Your task to perform on an android device: toggle location history Image 0: 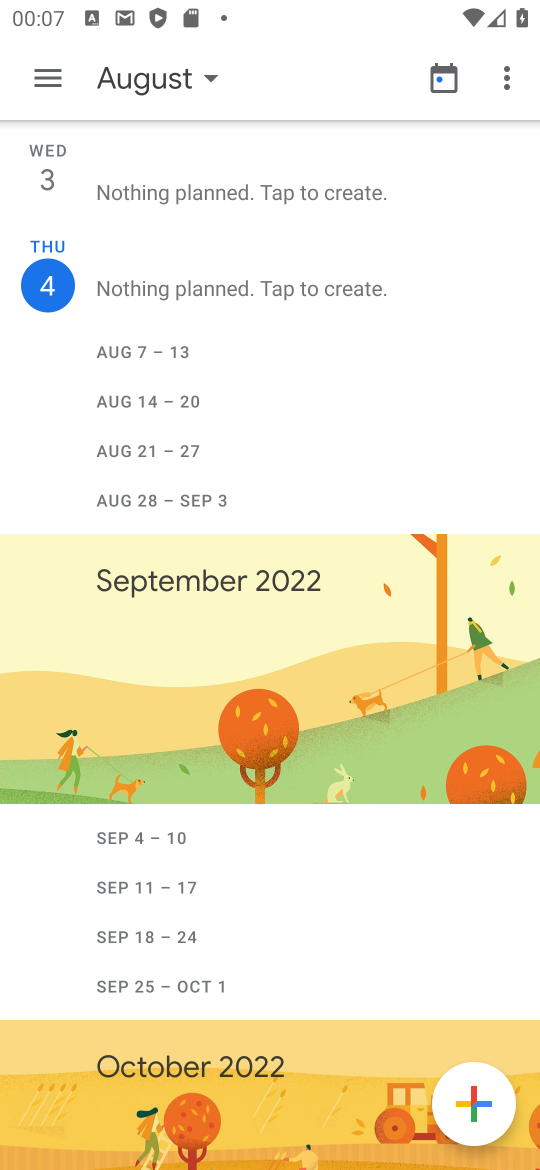
Step 0: press home button
Your task to perform on an android device: toggle location history Image 1: 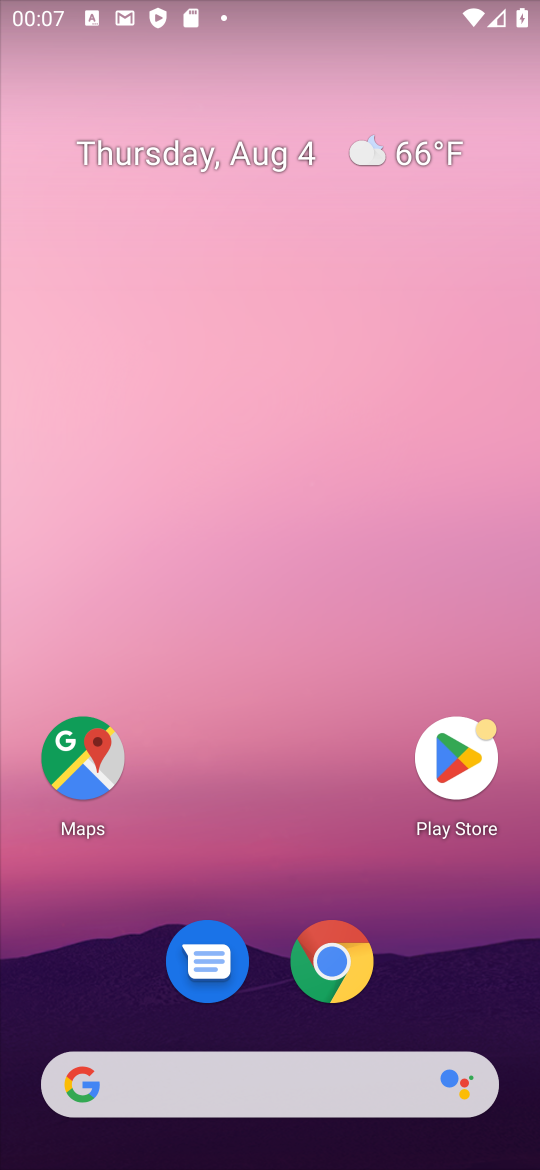
Step 1: drag from (289, 848) to (250, 22)
Your task to perform on an android device: toggle location history Image 2: 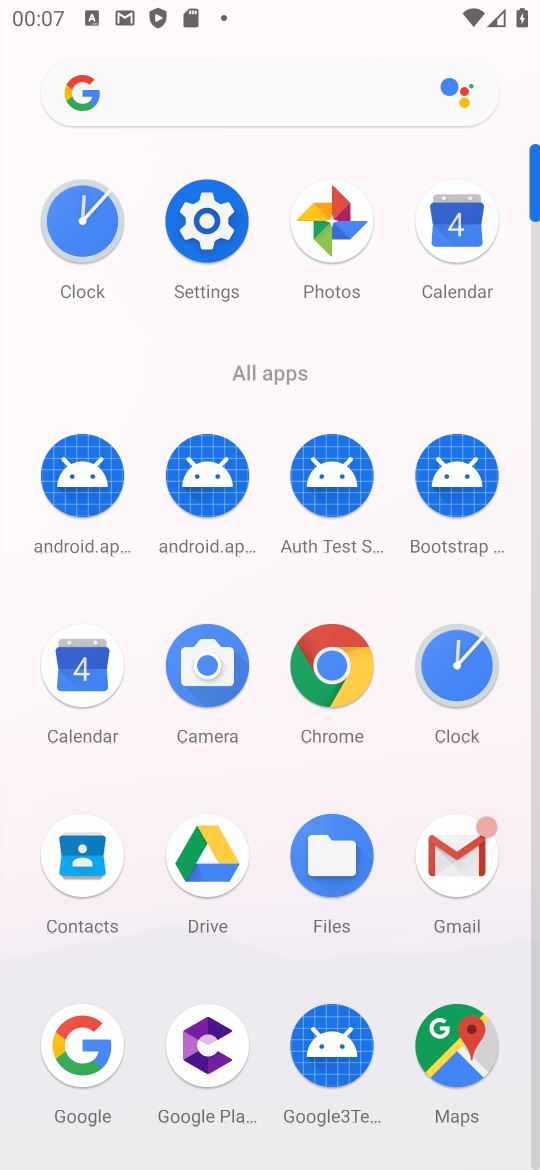
Step 2: click (208, 224)
Your task to perform on an android device: toggle location history Image 3: 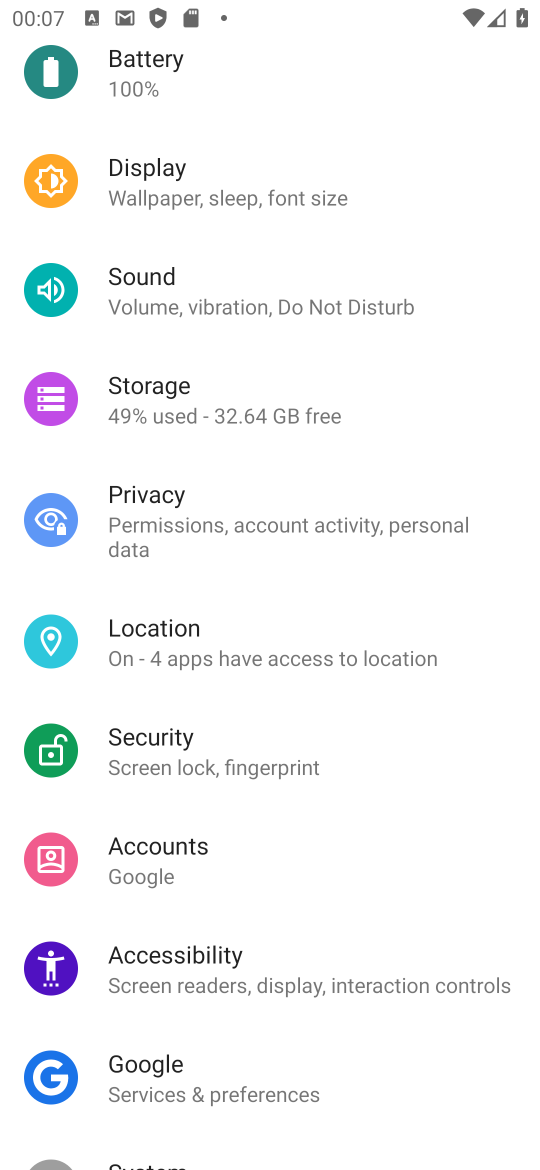
Step 3: click (220, 637)
Your task to perform on an android device: toggle location history Image 4: 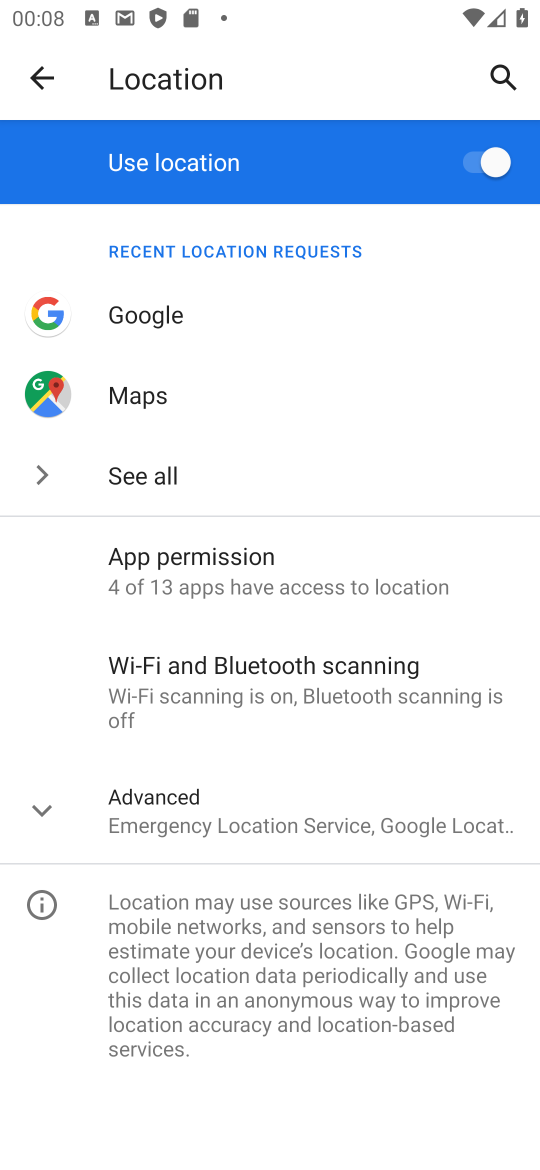
Step 4: click (47, 810)
Your task to perform on an android device: toggle location history Image 5: 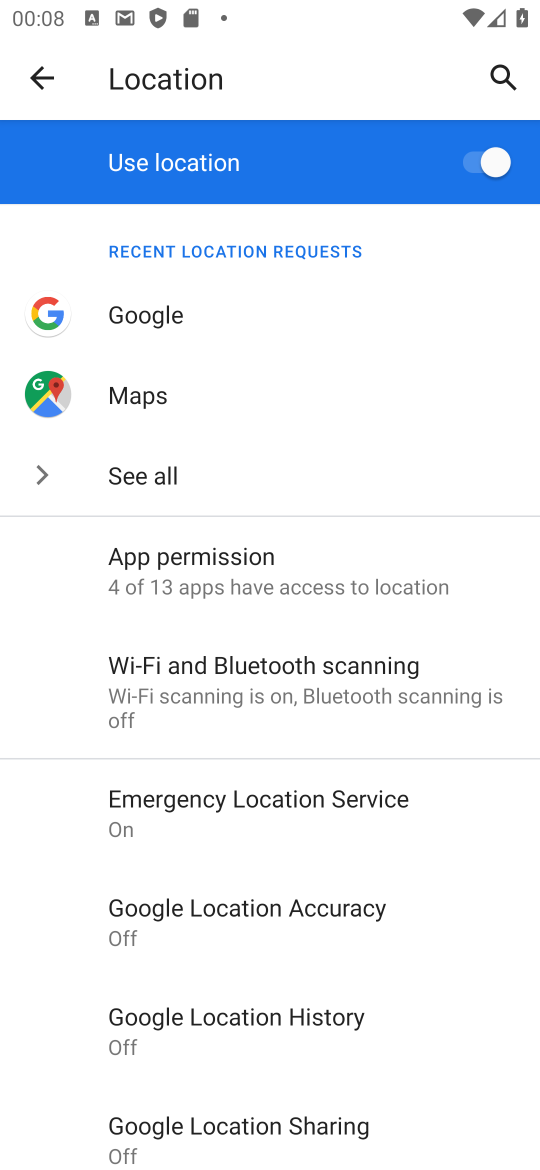
Step 5: click (254, 1016)
Your task to perform on an android device: toggle location history Image 6: 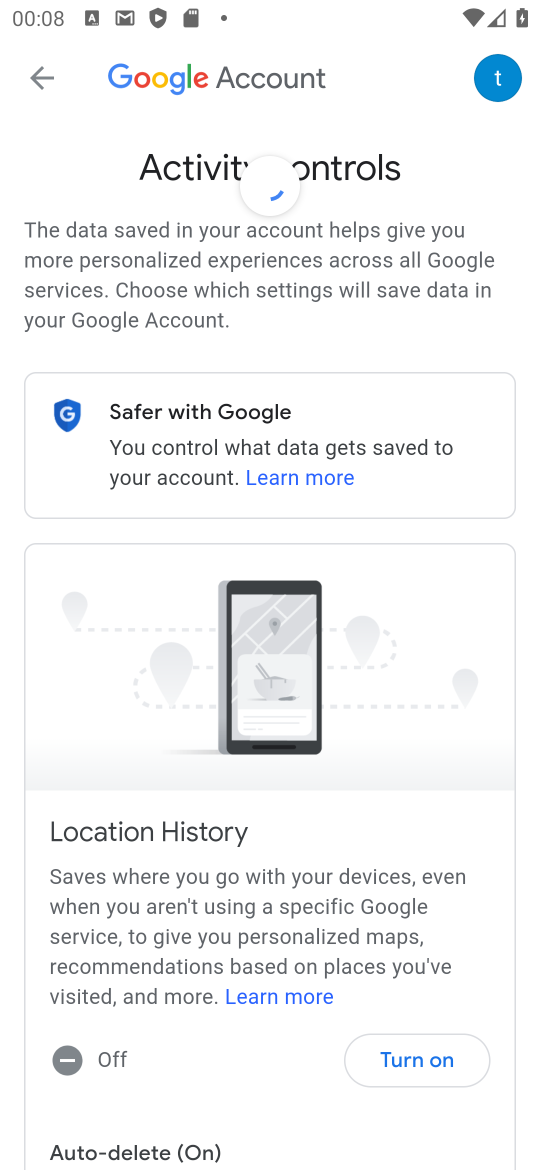
Step 6: click (453, 1059)
Your task to perform on an android device: toggle location history Image 7: 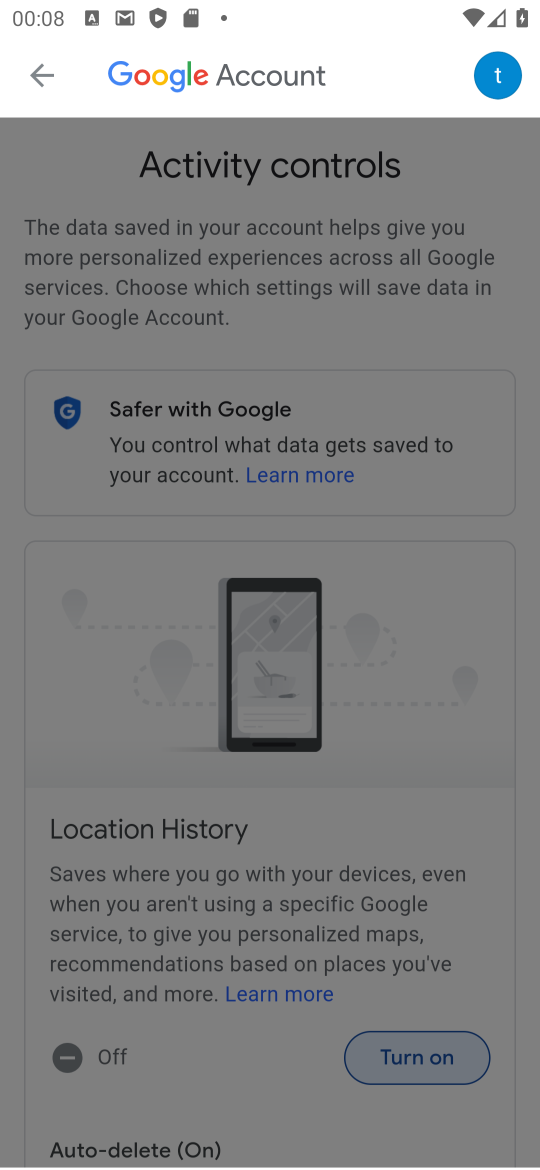
Step 7: click (451, 1057)
Your task to perform on an android device: toggle location history Image 8: 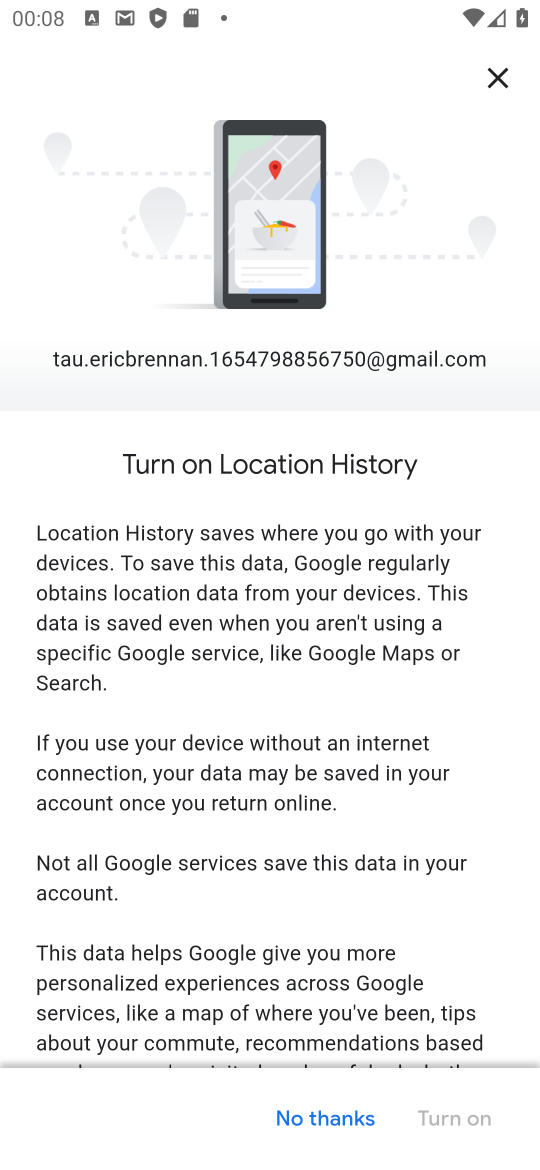
Step 8: drag from (366, 940) to (396, 35)
Your task to perform on an android device: toggle location history Image 9: 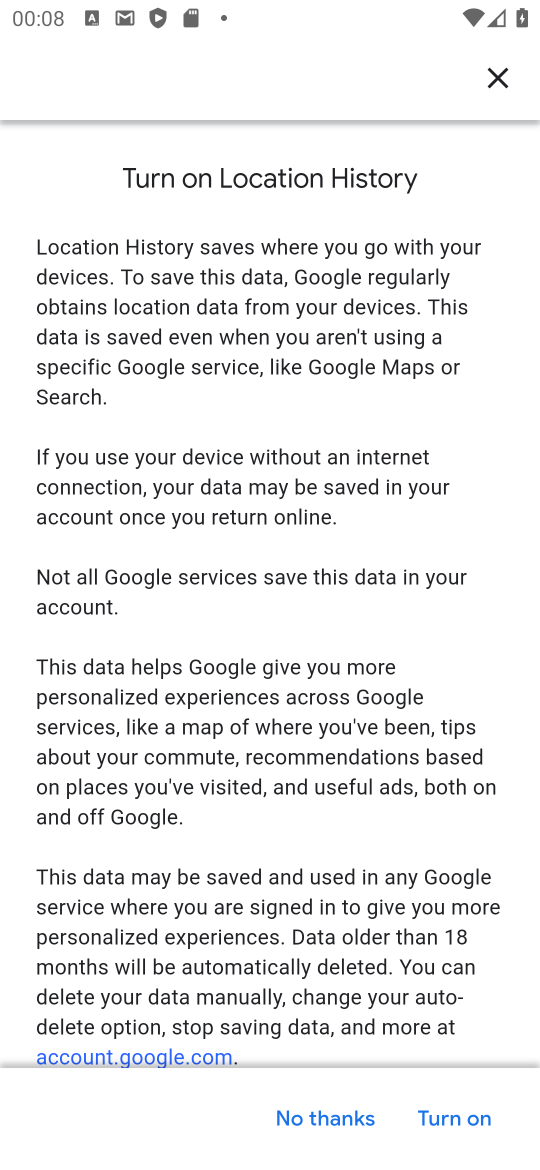
Step 9: click (442, 1110)
Your task to perform on an android device: toggle location history Image 10: 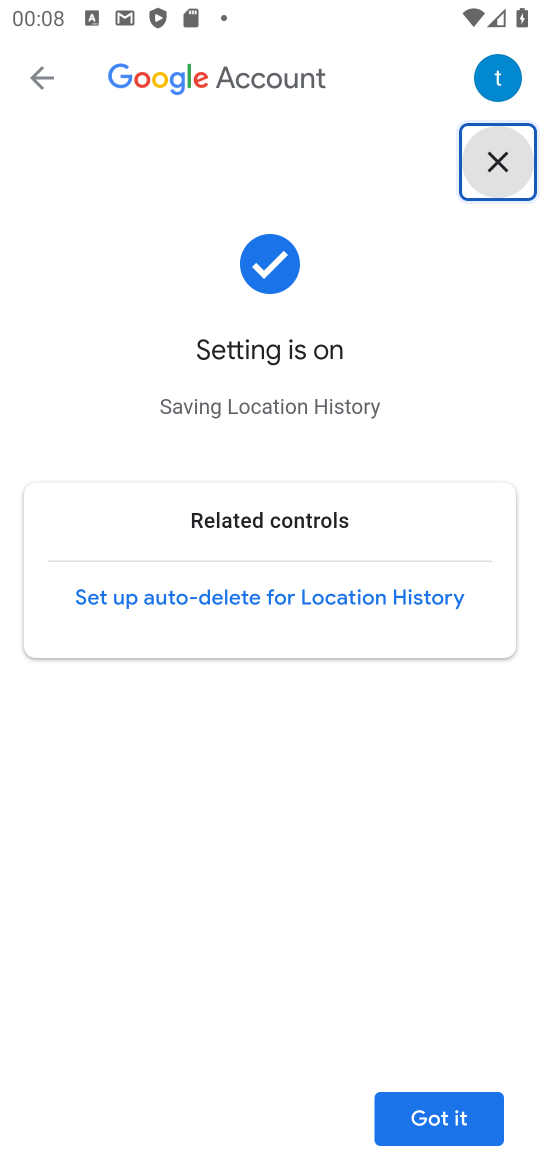
Step 10: click (462, 1116)
Your task to perform on an android device: toggle location history Image 11: 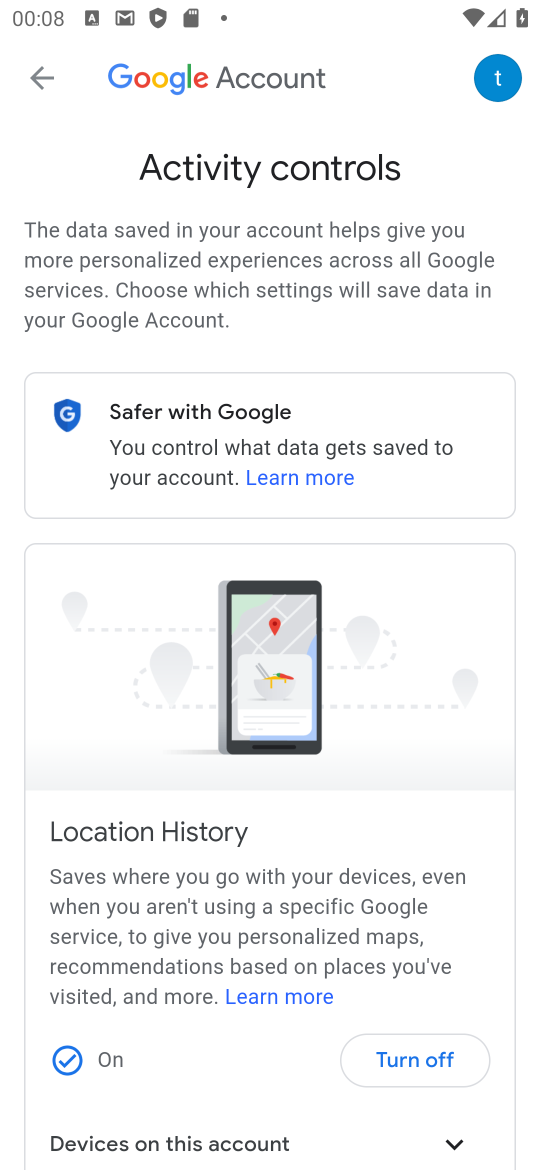
Step 11: task complete